Your task to perform on an android device: Go to accessibility settings Image 0: 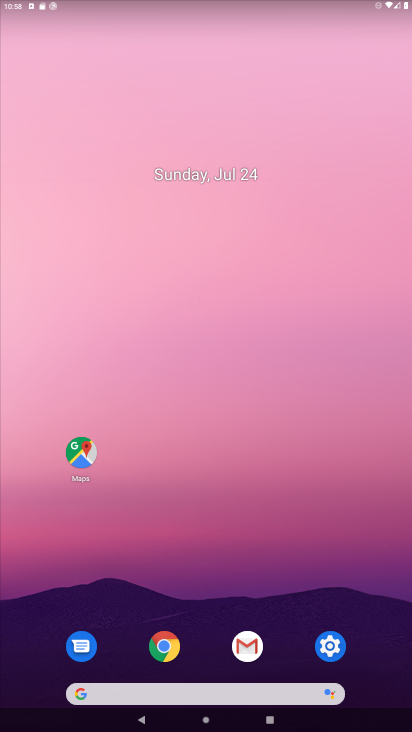
Step 0: click (337, 644)
Your task to perform on an android device: Go to accessibility settings Image 1: 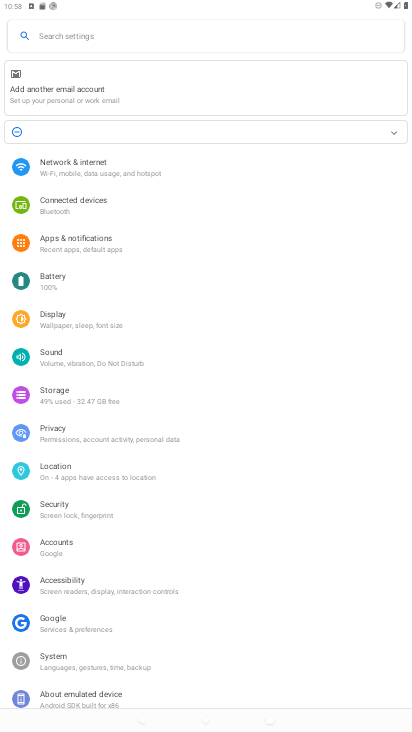
Step 1: click (85, 41)
Your task to perform on an android device: Go to accessibility settings Image 2: 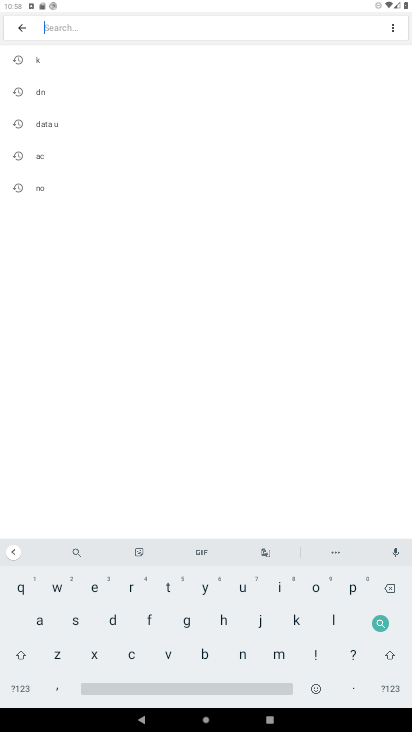
Step 2: click (39, 617)
Your task to perform on an android device: Go to accessibility settings Image 3: 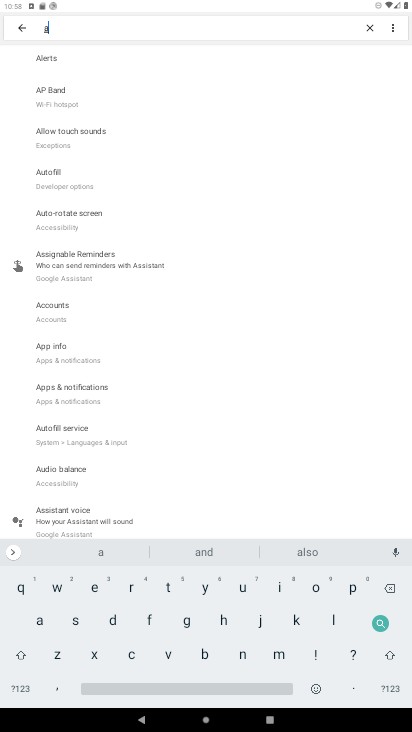
Step 3: click (124, 655)
Your task to perform on an android device: Go to accessibility settings Image 4: 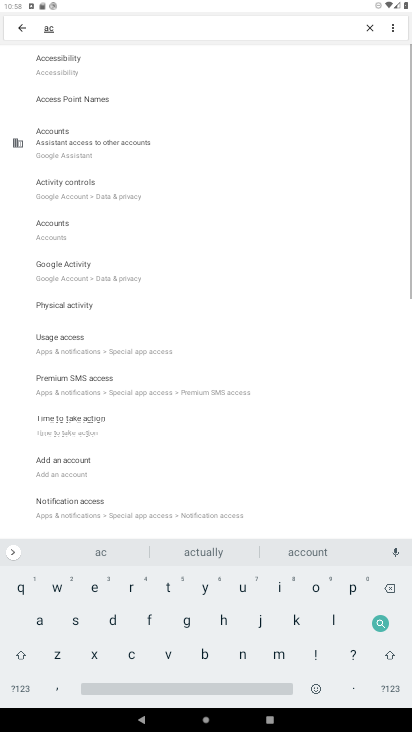
Step 4: click (94, 70)
Your task to perform on an android device: Go to accessibility settings Image 5: 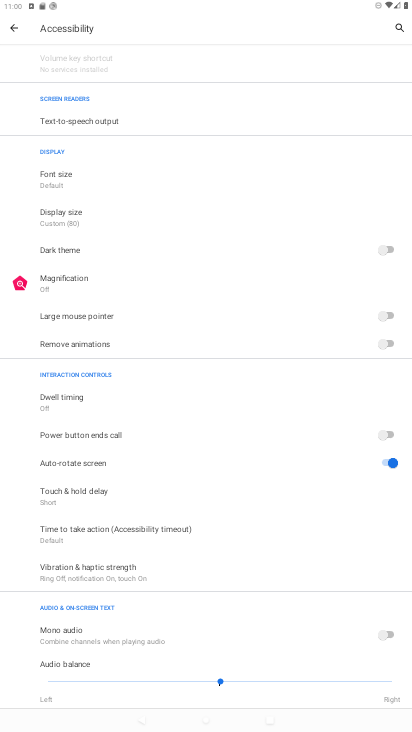
Step 5: task complete